Your task to perform on an android device: Go to location settings Image 0: 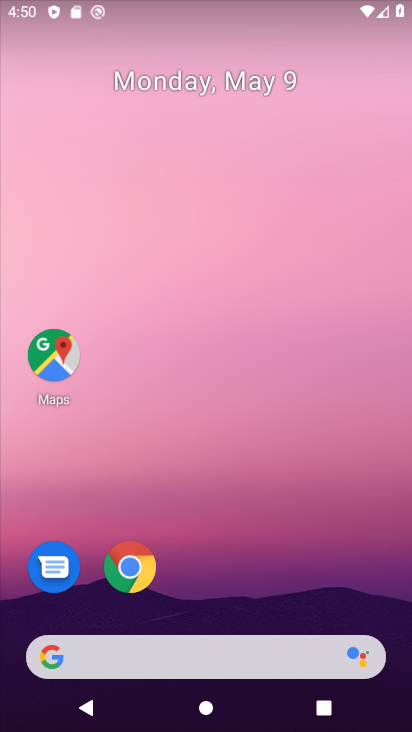
Step 0: drag from (201, 604) to (282, 197)
Your task to perform on an android device: Go to location settings Image 1: 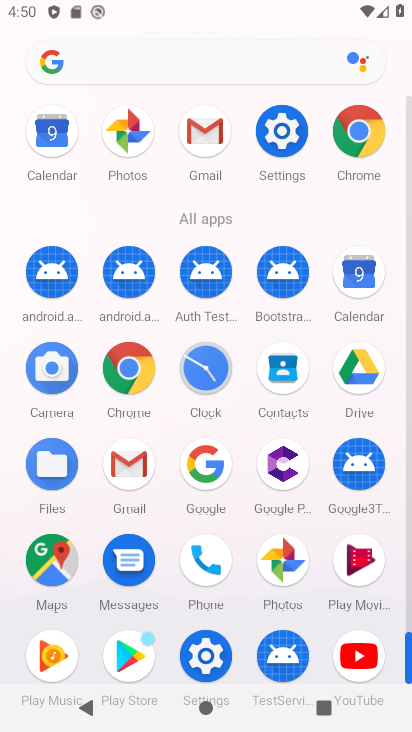
Step 1: click (280, 178)
Your task to perform on an android device: Go to location settings Image 2: 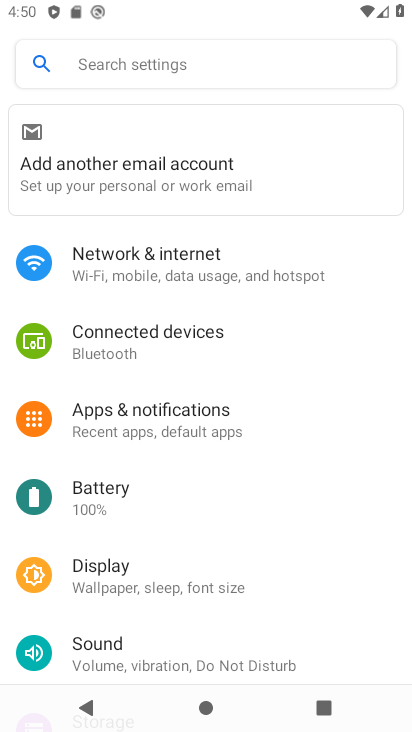
Step 2: drag from (121, 650) to (153, 382)
Your task to perform on an android device: Go to location settings Image 3: 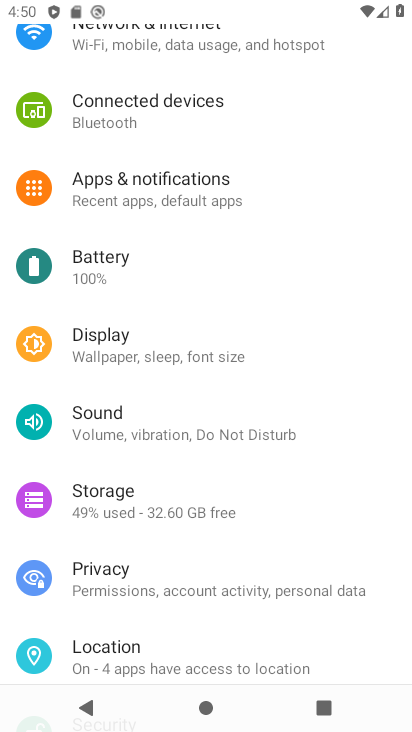
Step 3: click (99, 666)
Your task to perform on an android device: Go to location settings Image 4: 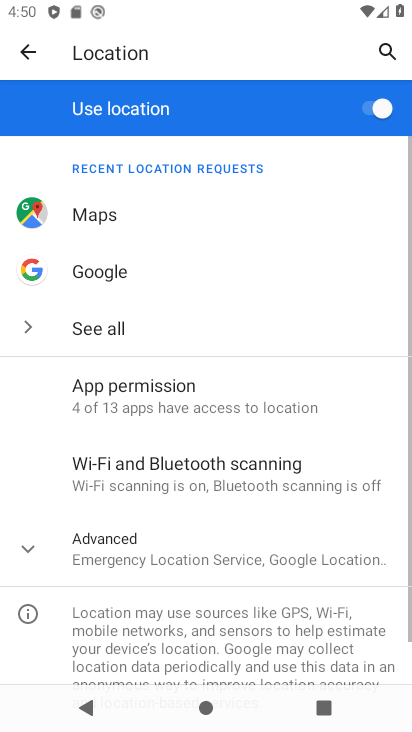
Step 4: task complete